Your task to perform on an android device: empty trash in the gmail app Image 0: 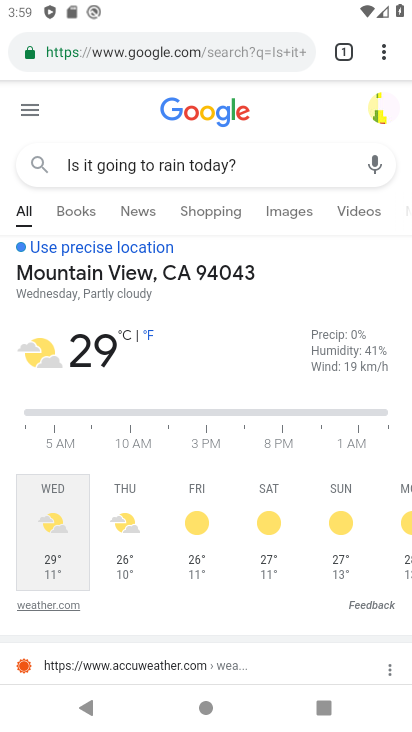
Step 0: press home button
Your task to perform on an android device: empty trash in the gmail app Image 1: 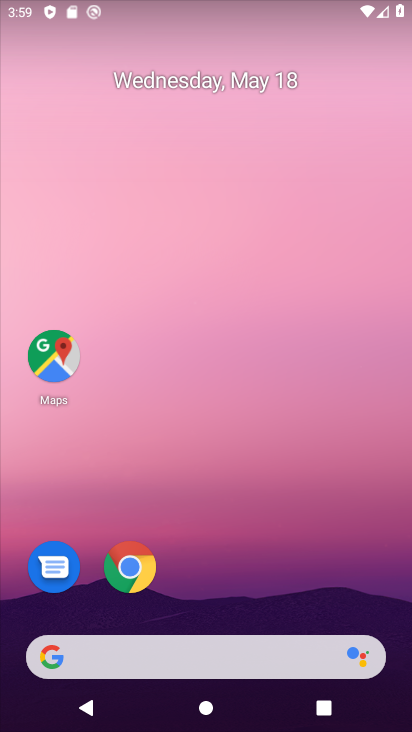
Step 1: drag from (262, 596) to (326, 138)
Your task to perform on an android device: empty trash in the gmail app Image 2: 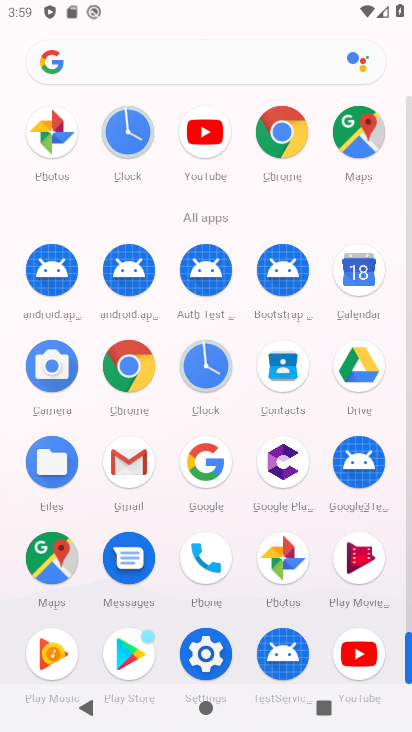
Step 2: click (115, 468)
Your task to perform on an android device: empty trash in the gmail app Image 3: 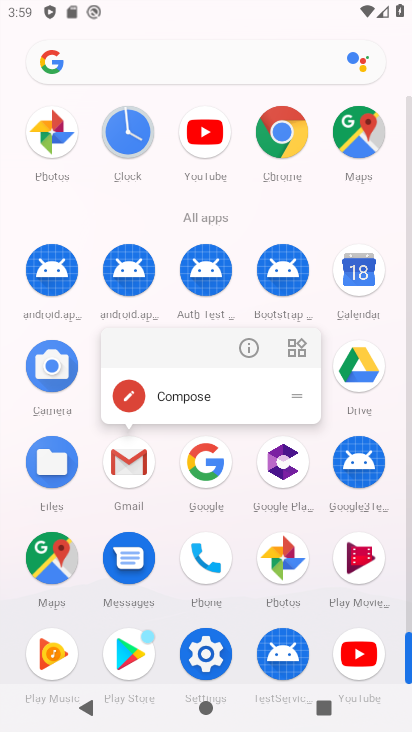
Step 3: click (133, 454)
Your task to perform on an android device: empty trash in the gmail app Image 4: 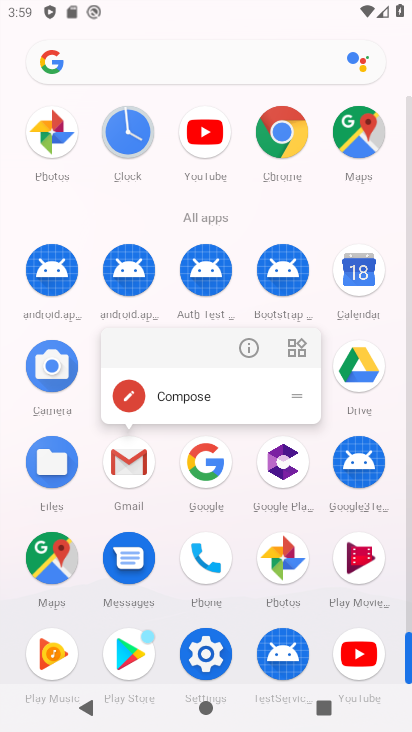
Step 4: click (113, 458)
Your task to perform on an android device: empty trash in the gmail app Image 5: 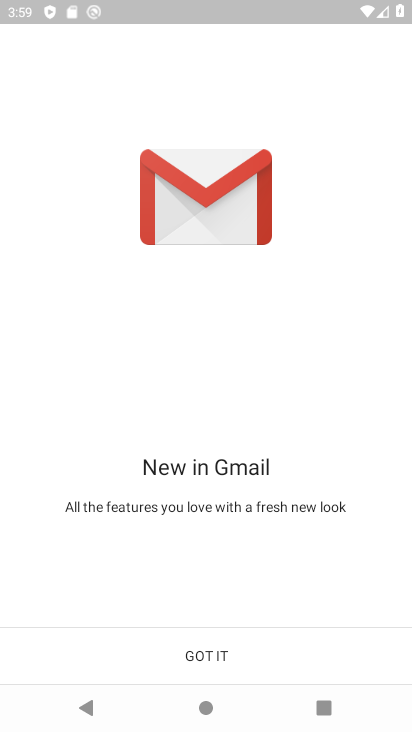
Step 5: click (182, 656)
Your task to perform on an android device: empty trash in the gmail app Image 6: 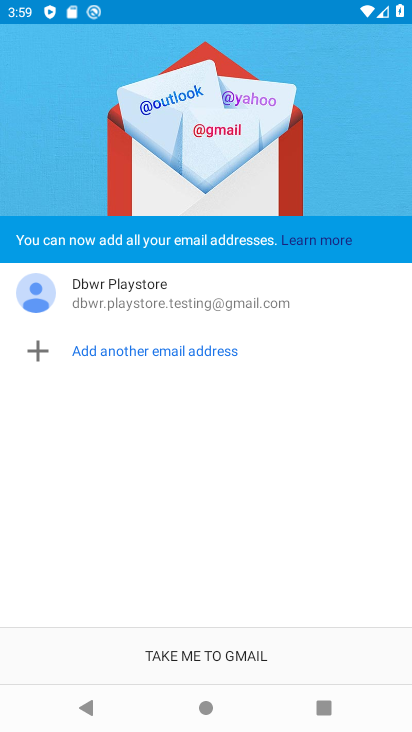
Step 6: click (188, 656)
Your task to perform on an android device: empty trash in the gmail app Image 7: 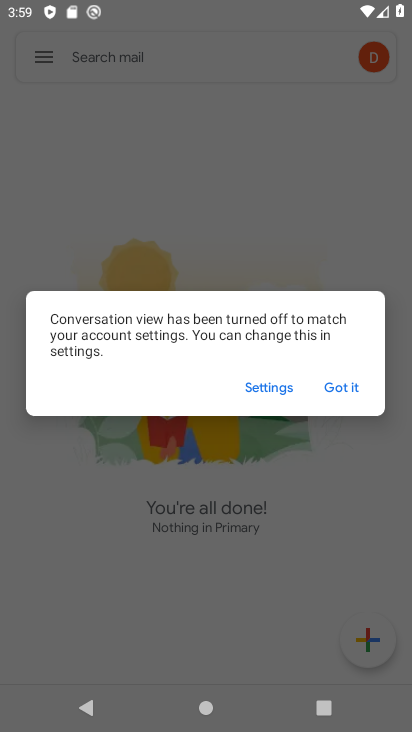
Step 7: click (343, 391)
Your task to perform on an android device: empty trash in the gmail app Image 8: 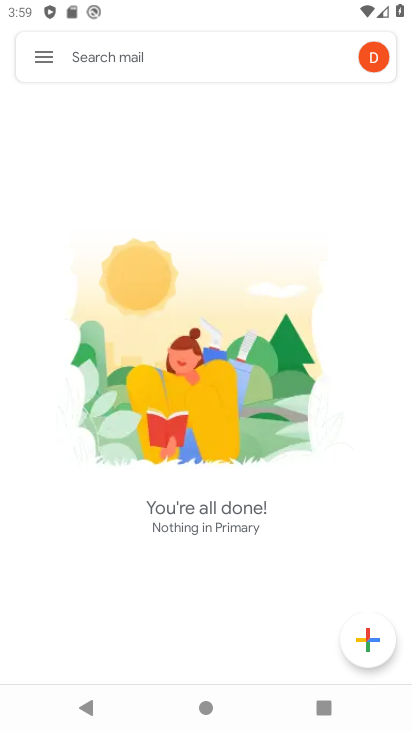
Step 8: click (39, 50)
Your task to perform on an android device: empty trash in the gmail app Image 9: 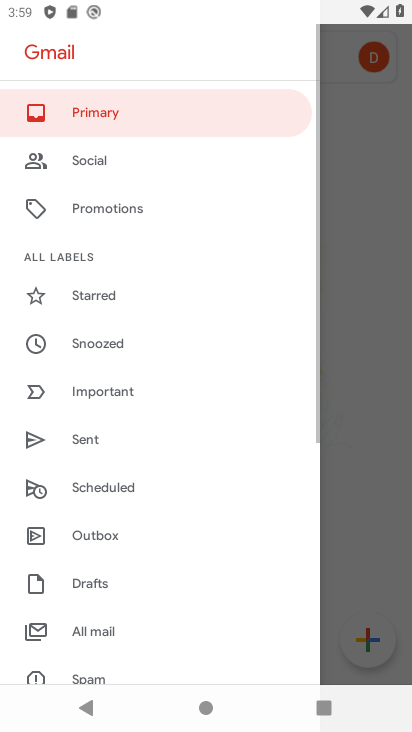
Step 9: drag from (171, 596) to (225, 169)
Your task to perform on an android device: empty trash in the gmail app Image 10: 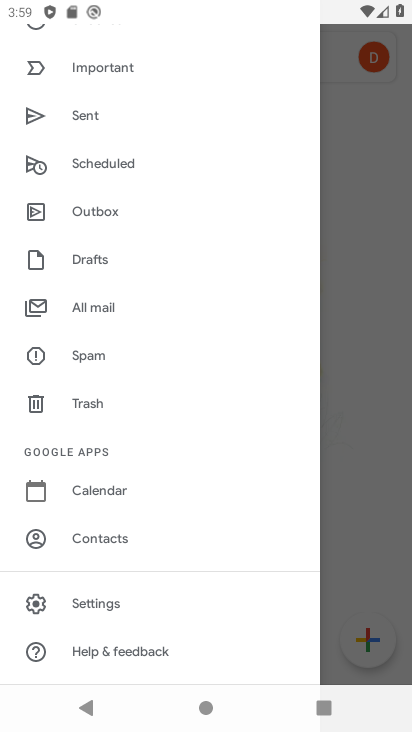
Step 10: click (81, 398)
Your task to perform on an android device: empty trash in the gmail app Image 11: 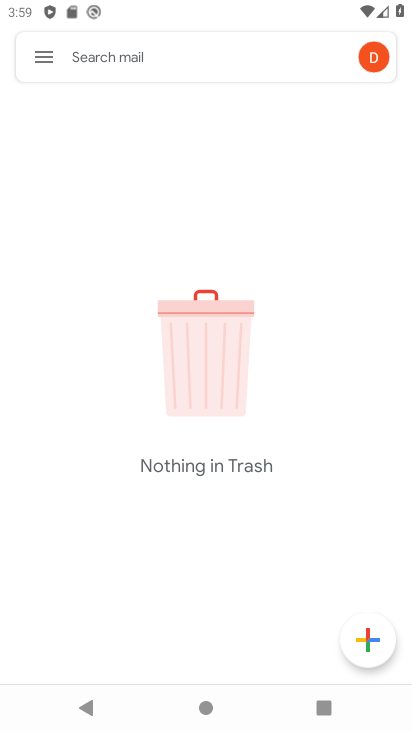
Step 11: task complete